Your task to perform on an android device: stop showing notifications on the lock screen Image 0: 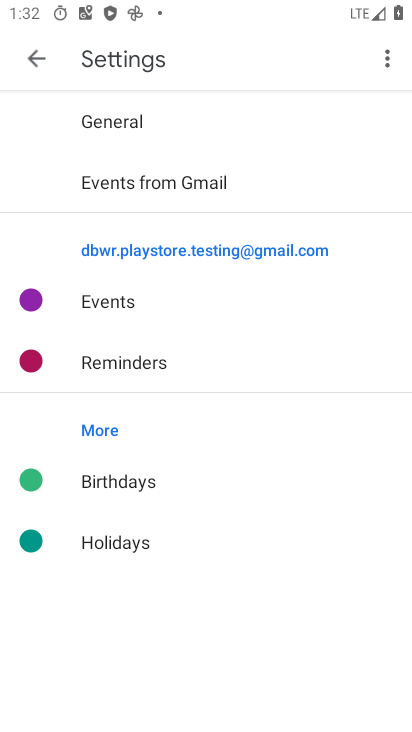
Step 0: press home button
Your task to perform on an android device: stop showing notifications on the lock screen Image 1: 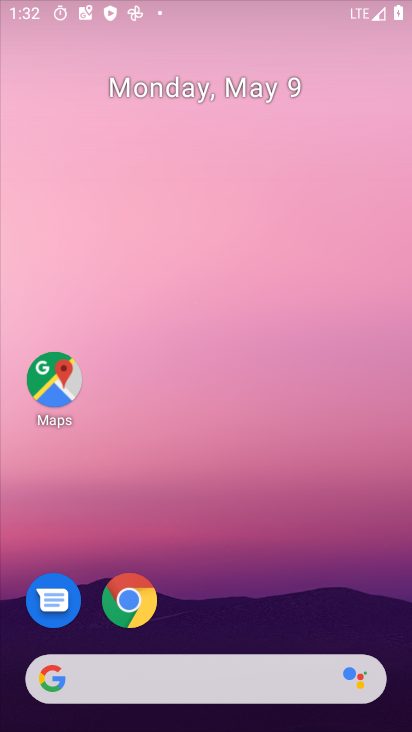
Step 1: drag from (337, 586) to (231, 299)
Your task to perform on an android device: stop showing notifications on the lock screen Image 2: 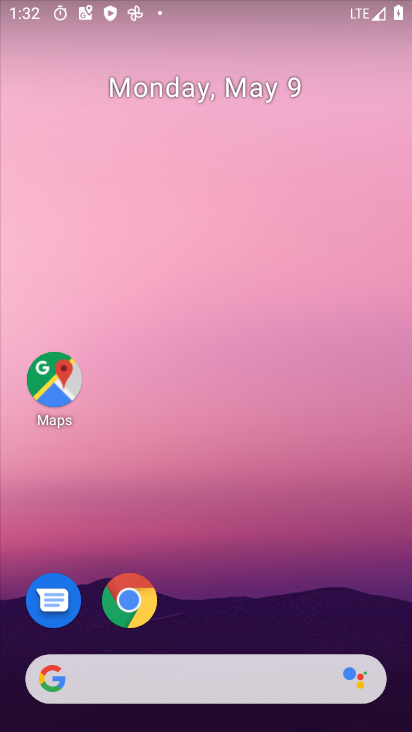
Step 2: drag from (284, 616) to (264, 154)
Your task to perform on an android device: stop showing notifications on the lock screen Image 3: 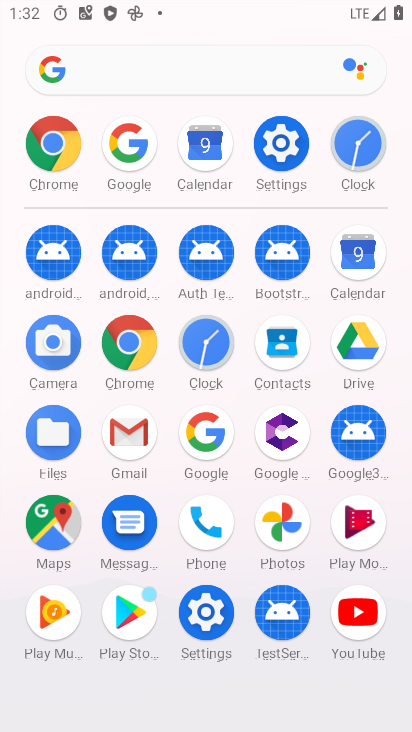
Step 3: click (273, 163)
Your task to perform on an android device: stop showing notifications on the lock screen Image 4: 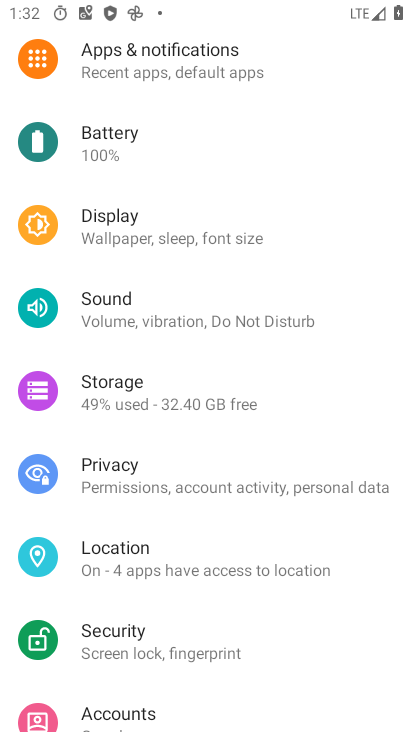
Step 4: drag from (200, 221) to (208, 426)
Your task to perform on an android device: stop showing notifications on the lock screen Image 5: 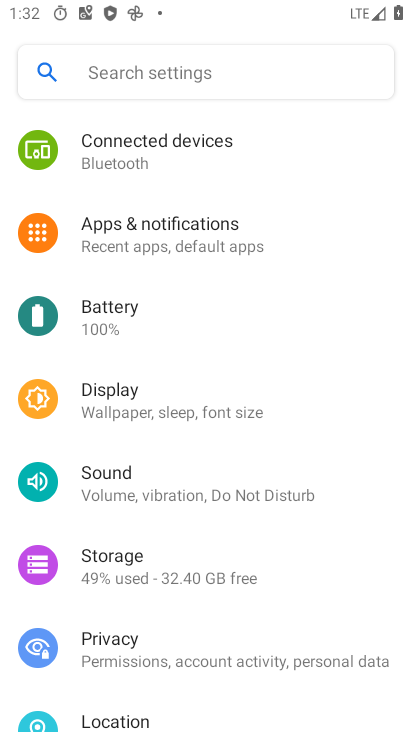
Step 5: click (177, 238)
Your task to perform on an android device: stop showing notifications on the lock screen Image 6: 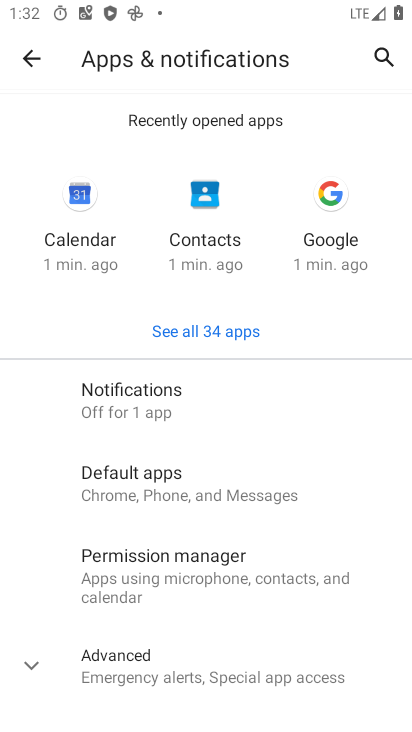
Step 6: click (158, 424)
Your task to perform on an android device: stop showing notifications on the lock screen Image 7: 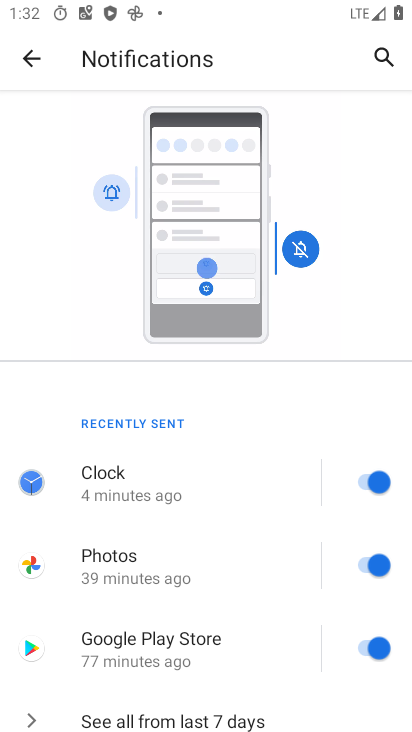
Step 7: drag from (194, 524) to (197, 250)
Your task to perform on an android device: stop showing notifications on the lock screen Image 8: 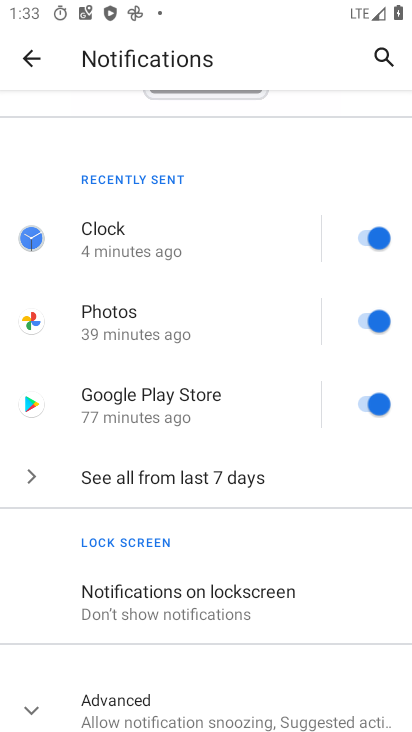
Step 8: drag from (216, 599) to (207, 450)
Your task to perform on an android device: stop showing notifications on the lock screen Image 9: 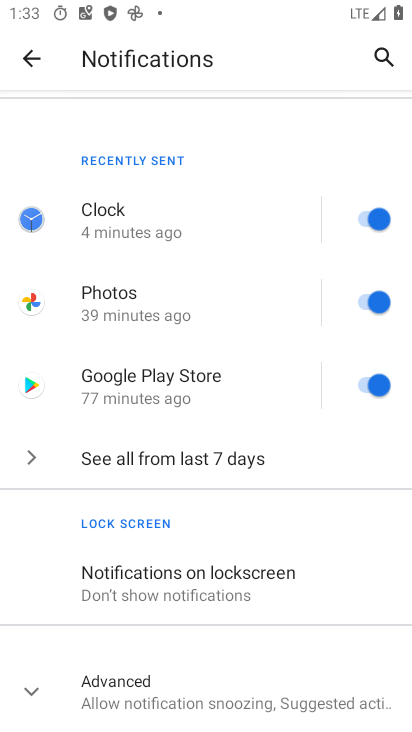
Step 9: click (191, 584)
Your task to perform on an android device: stop showing notifications on the lock screen Image 10: 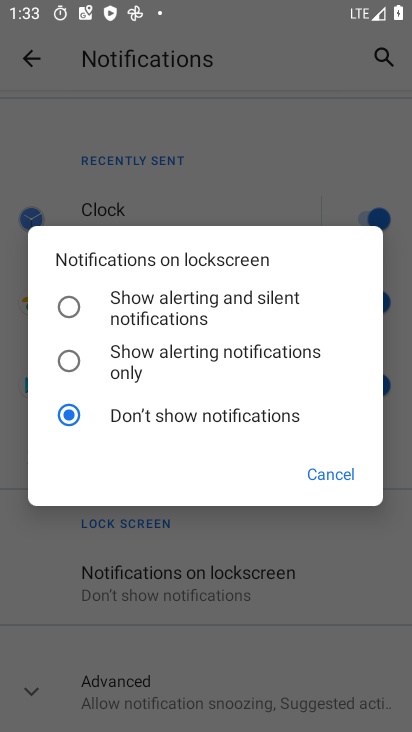
Step 10: click (236, 429)
Your task to perform on an android device: stop showing notifications on the lock screen Image 11: 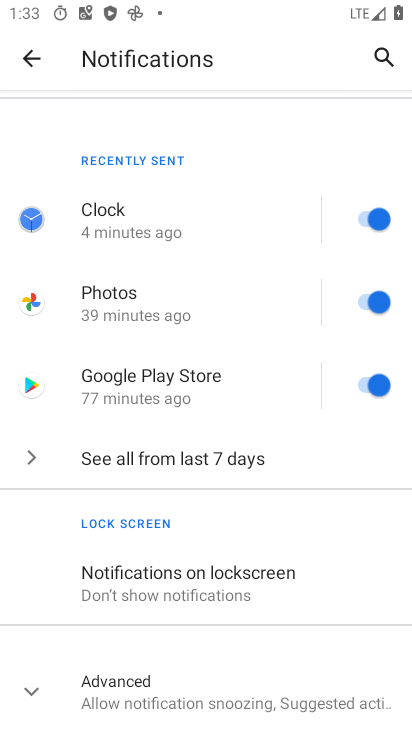
Step 11: task complete